Your task to perform on an android device: Search for bose soundlink mini on bestbuy.com, select the first entry, and add it to the cart. Image 0: 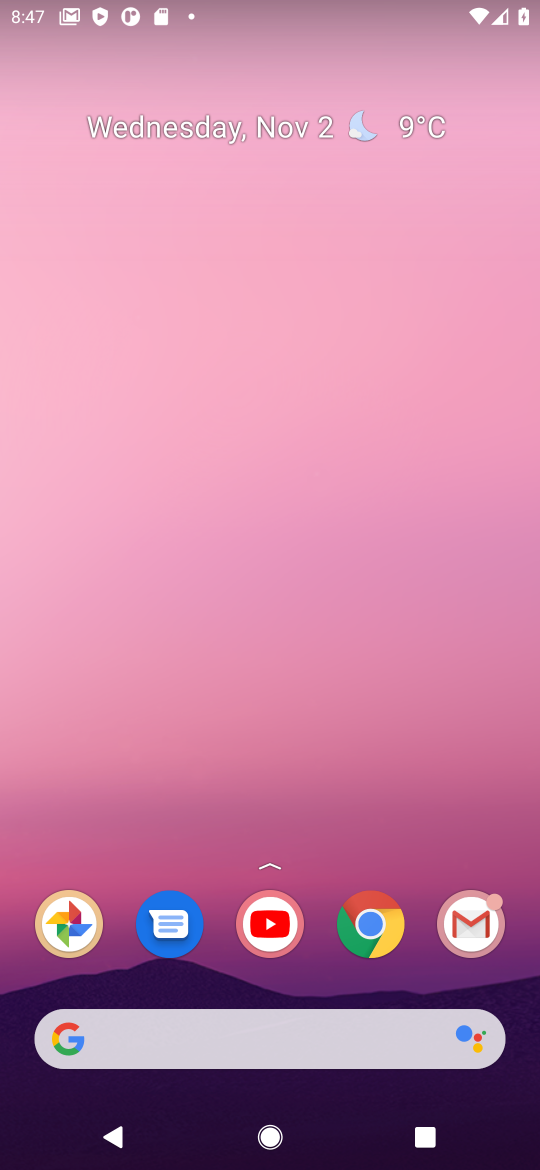
Step 0: press home button
Your task to perform on an android device: Search for bose soundlink mini on bestbuy.com, select the first entry, and add it to the cart. Image 1: 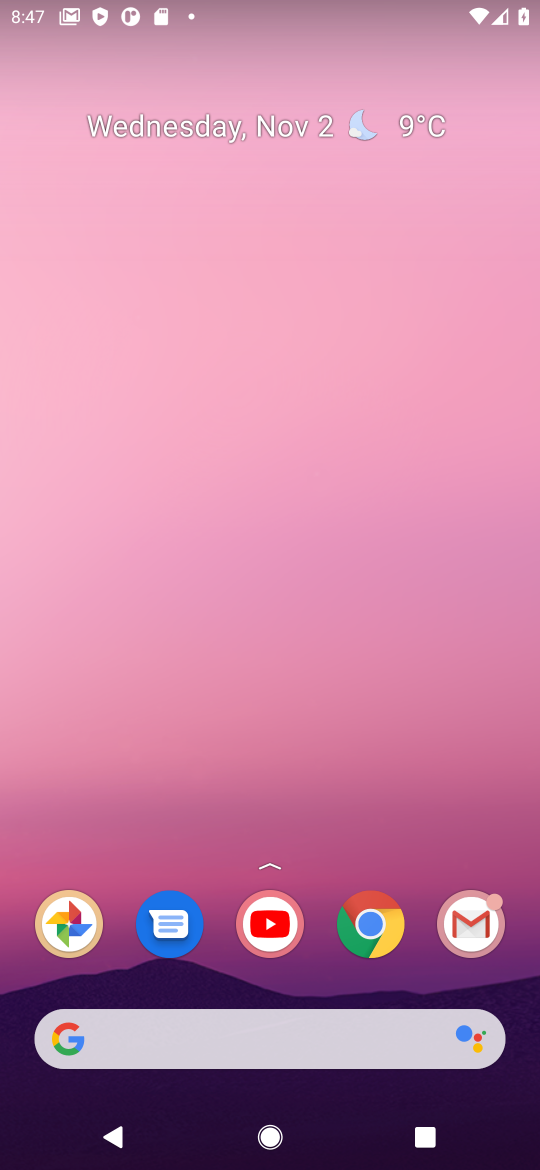
Step 1: click (387, 932)
Your task to perform on an android device: Search for bose soundlink mini on bestbuy.com, select the first entry, and add it to the cart. Image 2: 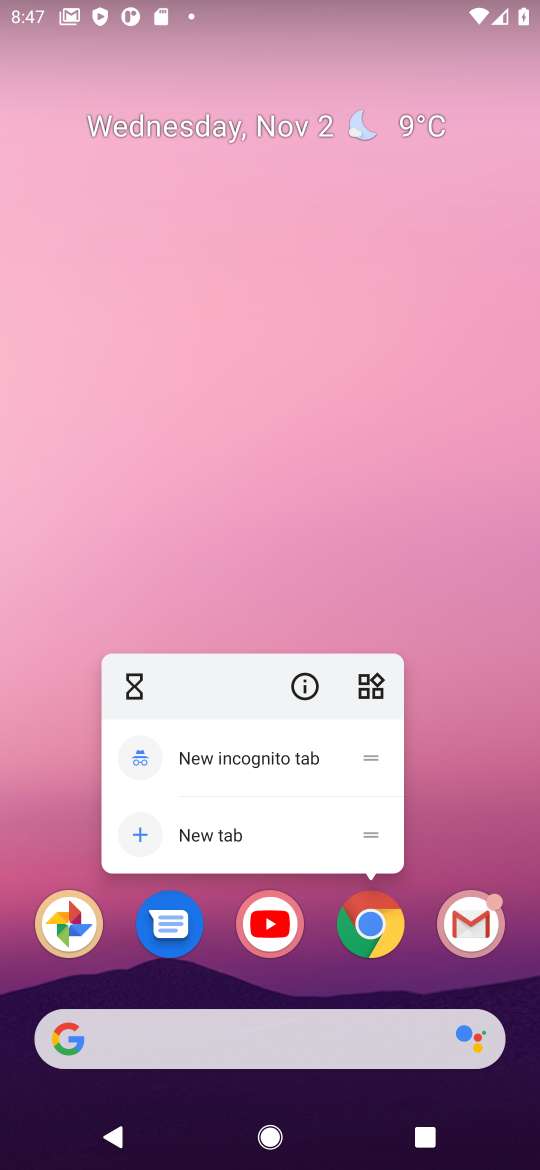
Step 2: click (381, 945)
Your task to perform on an android device: Search for bose soundlink mini on bestbuy.com, select the first entry, and add it to the cart. Image 3: 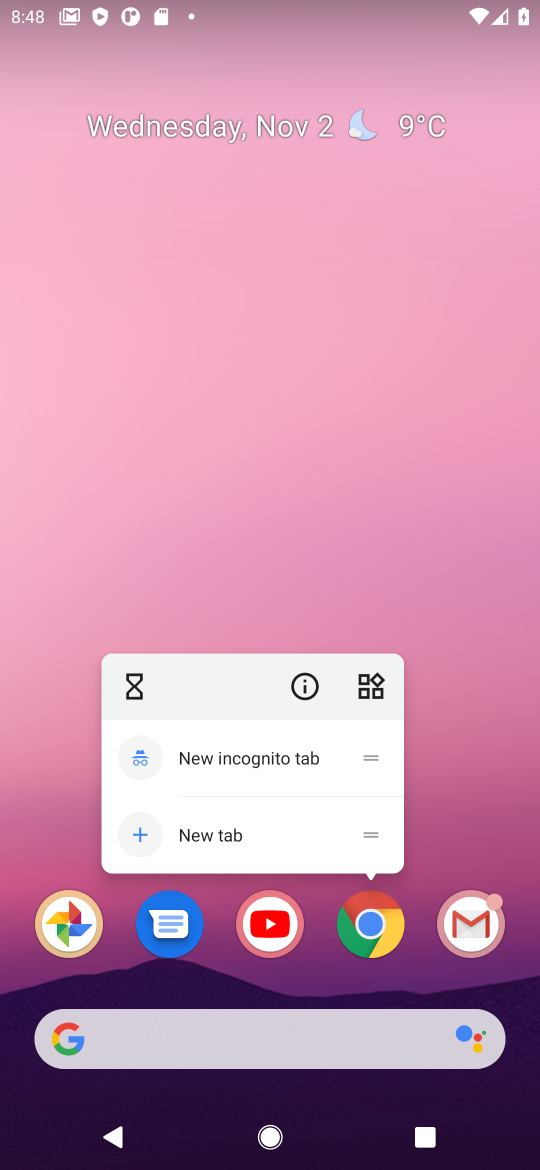
Step 3: click (387, 940)
Your task to perform on an android device: Search for bose soundlink mini on bestbuy.com, select the first entry, and add it to the cart. Image 4: 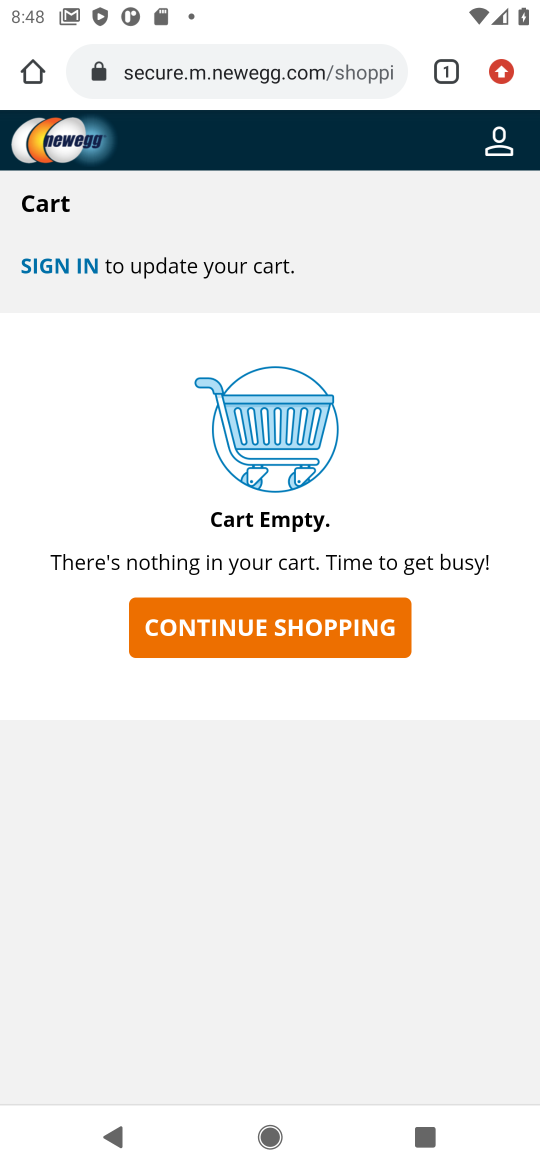
Step 4: click (224, 77)
Your task to perform on an android device: Search for bose soundlink mini on bestbuy.com, select the first entry, and add it to the cart. Image 5: 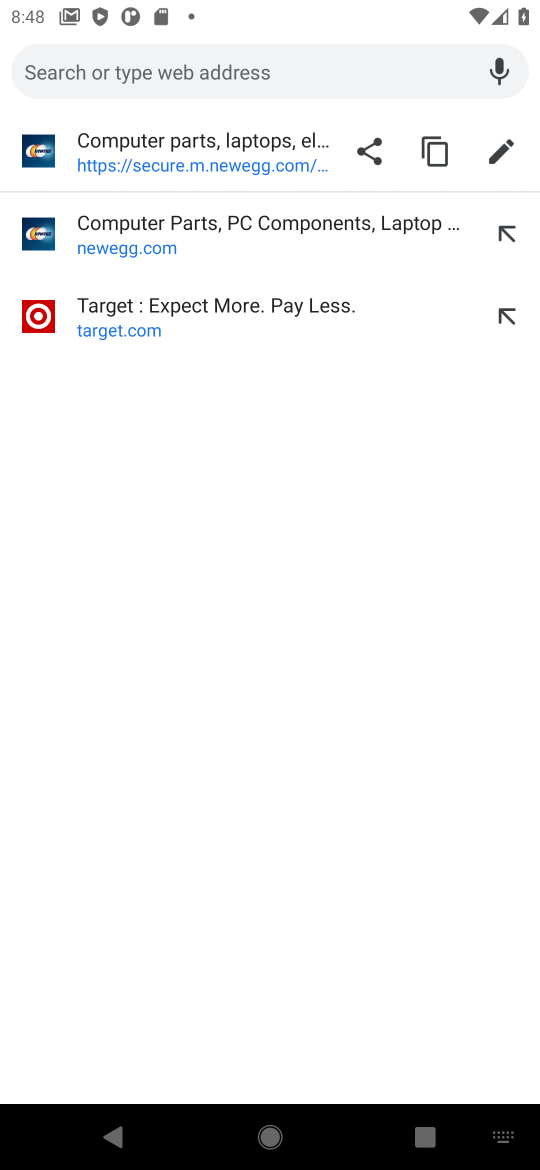
Step 5: type "bestbuy"
Your task to perform on an android device: Search for bose soundlink mini on bestbuy.com, select the first entry, and add it to the cart. Image 6: 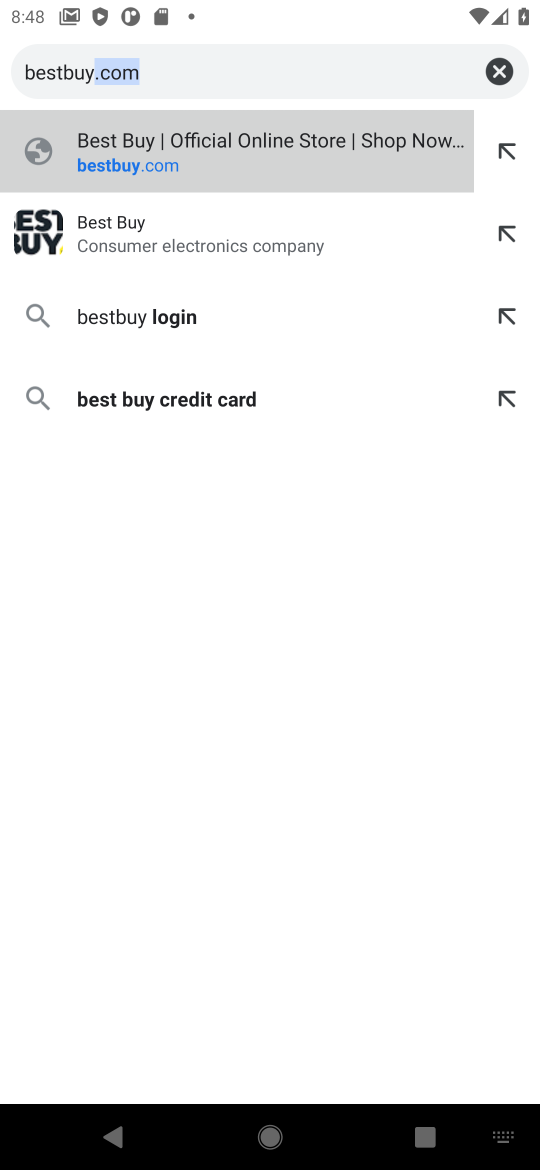
Step 6: type ""
Your task to perform on an android device: Search for bose soundlink mini on bestbuy.com, select the first entry, and add it to the cart. Image 7: 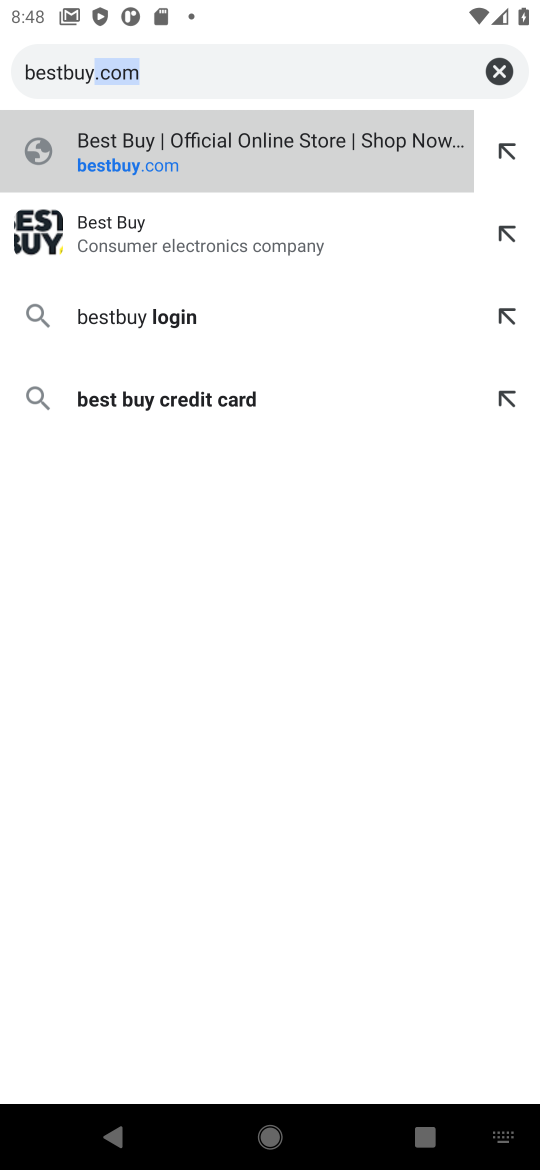
Step 7: click (161, 240)
Your task to perform on an android device: Search for bose soundlink mini on bestbuy.com, select the first entry, and add it to the cart. Image 8: 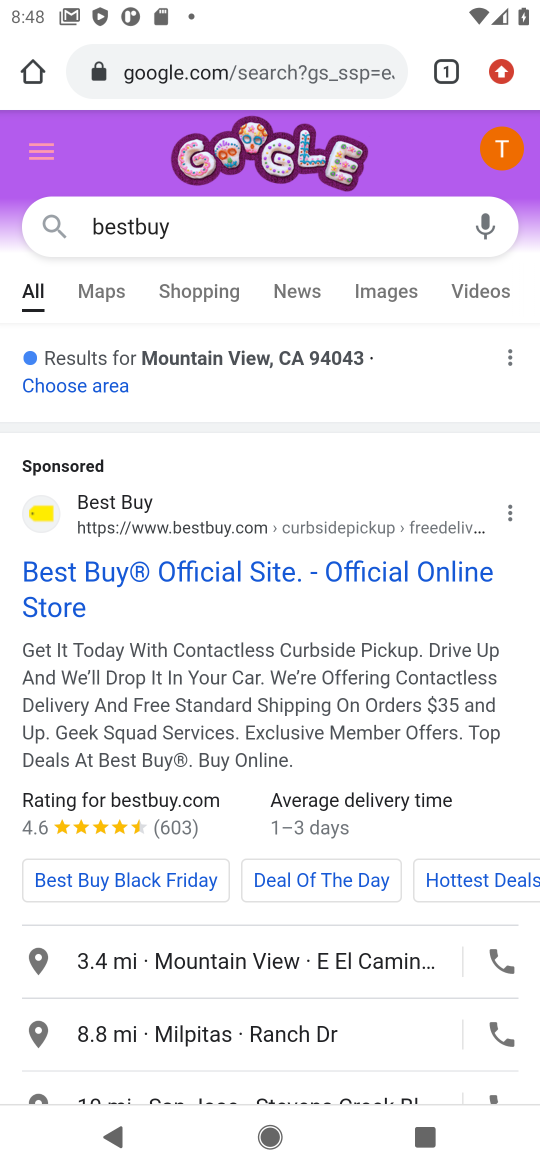
Step 8: drag from (254, 743) to (267, 170)
Your task to perform on an android device: Search for bose soundlink mini on bestbuy.com, select the first entry, and add it to the cart. Image 9: 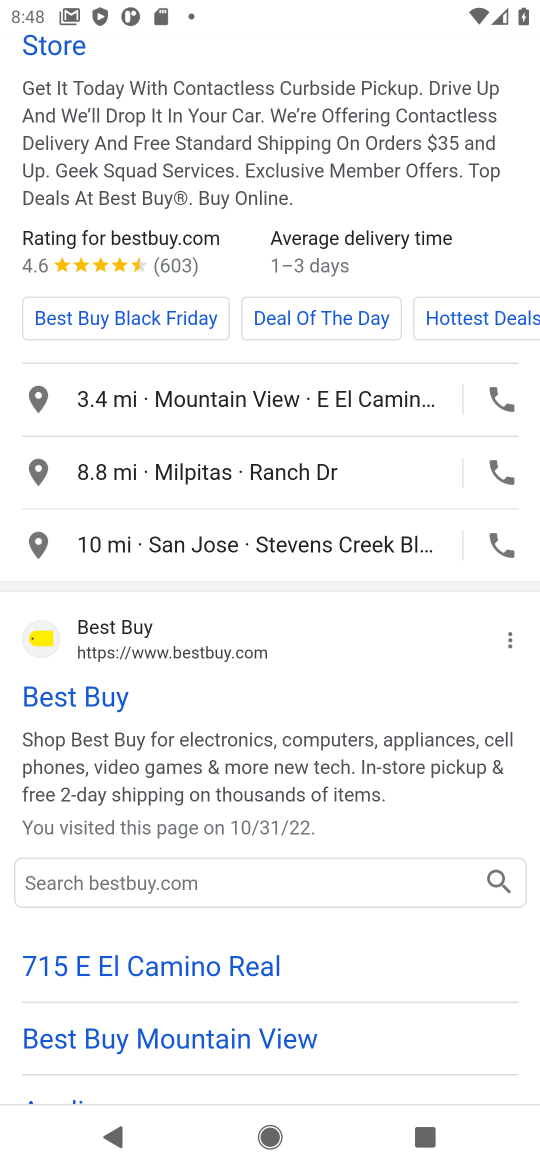
Step 9: click (92, 698)
Your task to perform on an android device: Search for bose soundlink mini on bestbuy.com, select the first entry, and add it to the cart. Image 10: 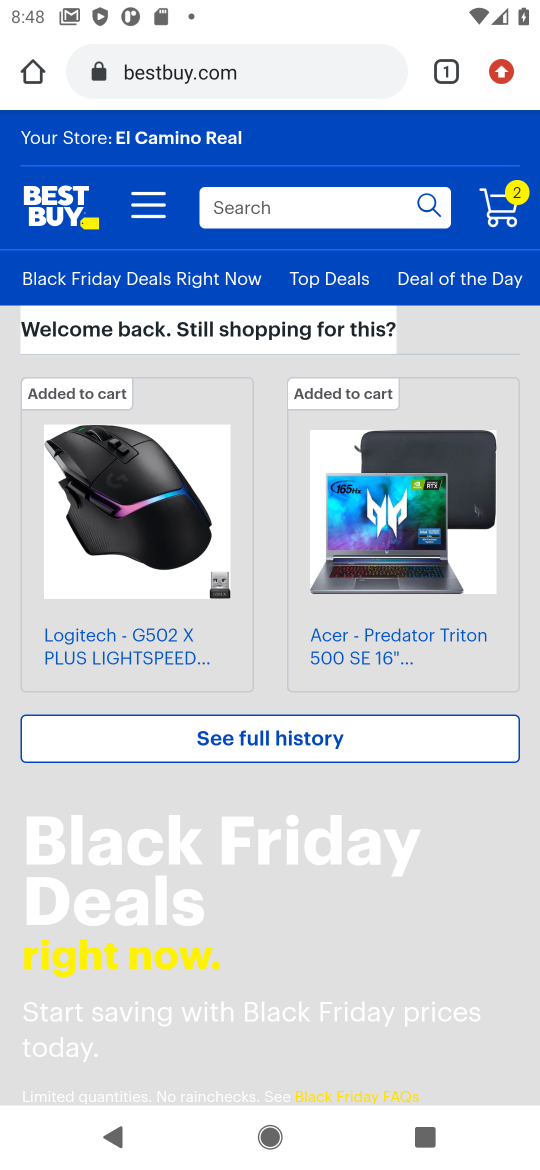
Step 10: click (342, 198)
Your task to perform on an android device: Search for bose soundlink mini on bestbuy.com, select the first entry, and add it to the cart. Image 11: 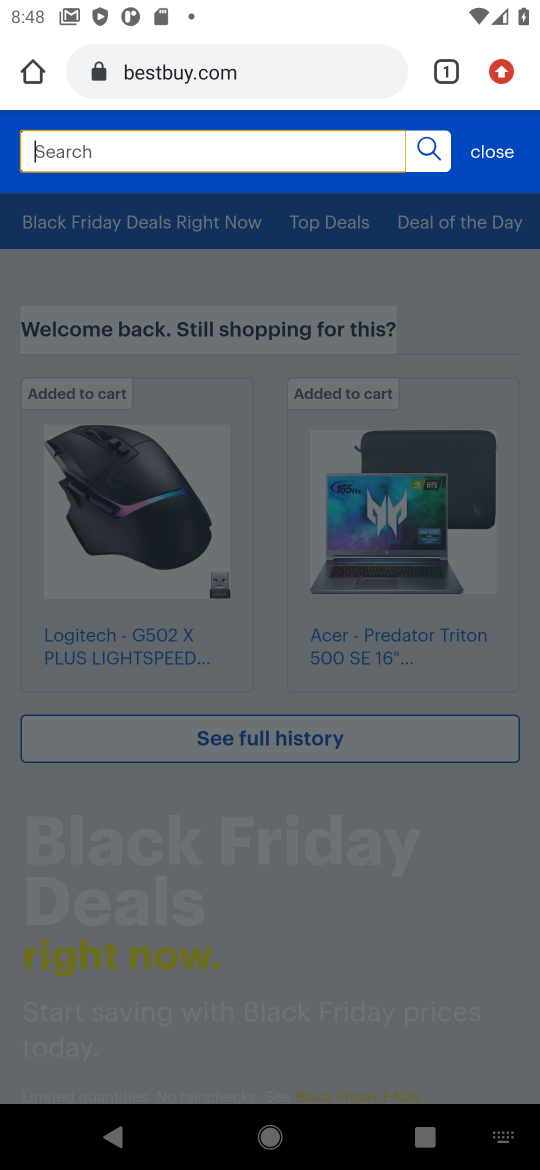
Step 11: type "bose soundlink mini"
Your task to perform on an android device: Search for bose soundlink mini on bestbuy.com, select the first entry, and add it to the cart. Image 12: 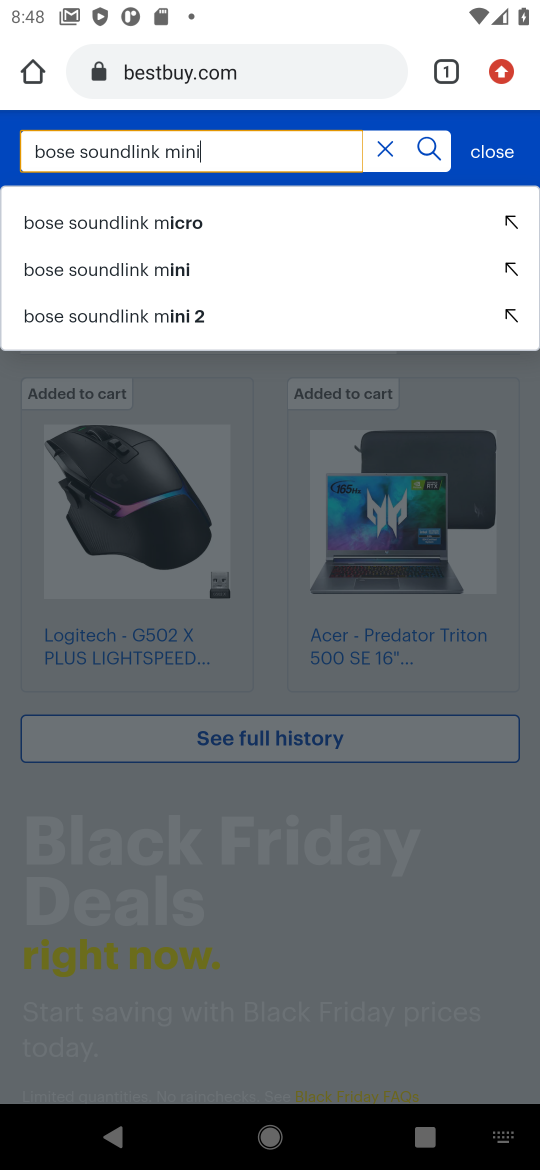
Step 12: type ""
Your task to perform on an android device: Search for bose soundlink mini on bestbuy.com, select the first entry, and add it to the cart. Image 13: 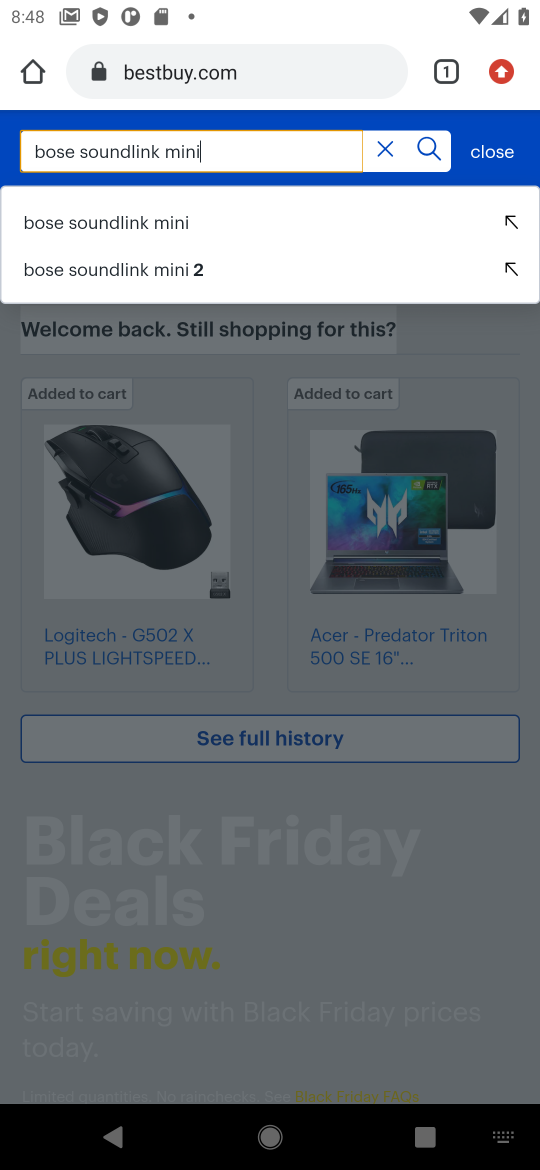
Step 13: click (79, 224)
Your task to perform on an android device: Search for bose soundlink mini on bestbuy.com, select the first entry, and add it to the cart. Image 14: 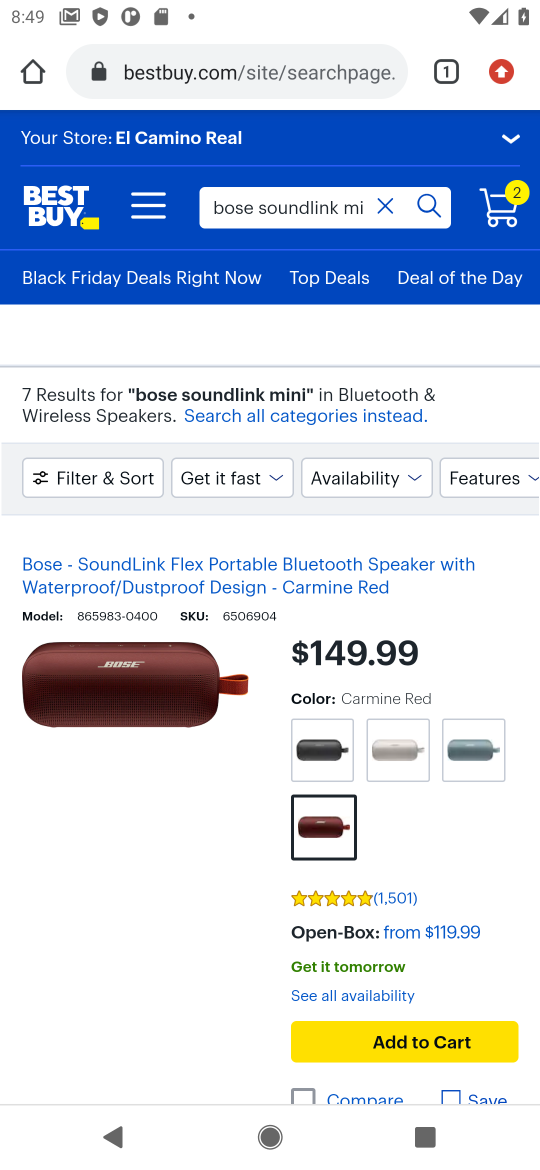
Step 14: click (400, 1042)
Your task to perform on an android device: Search for bose soundlink mini on bestbuy.com, select the first entry, and add it to the cart. Image 15: 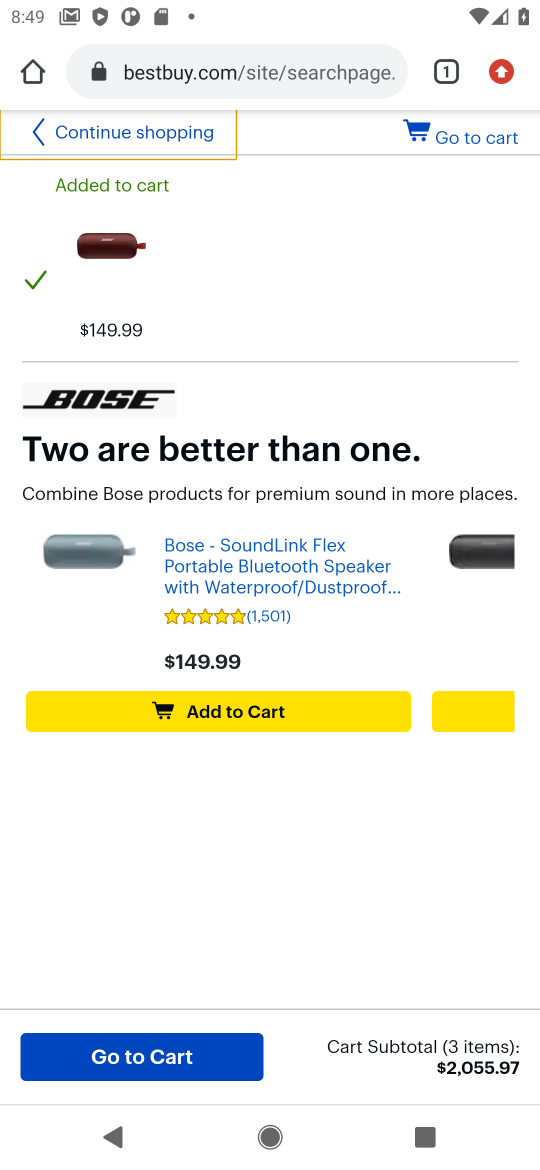
Step 15: click (121, 1070)
Your task to perform on an android device: Search for bose soundlink mini on bestbuy.com, select the first entry, and add it to the cart. Image 16: 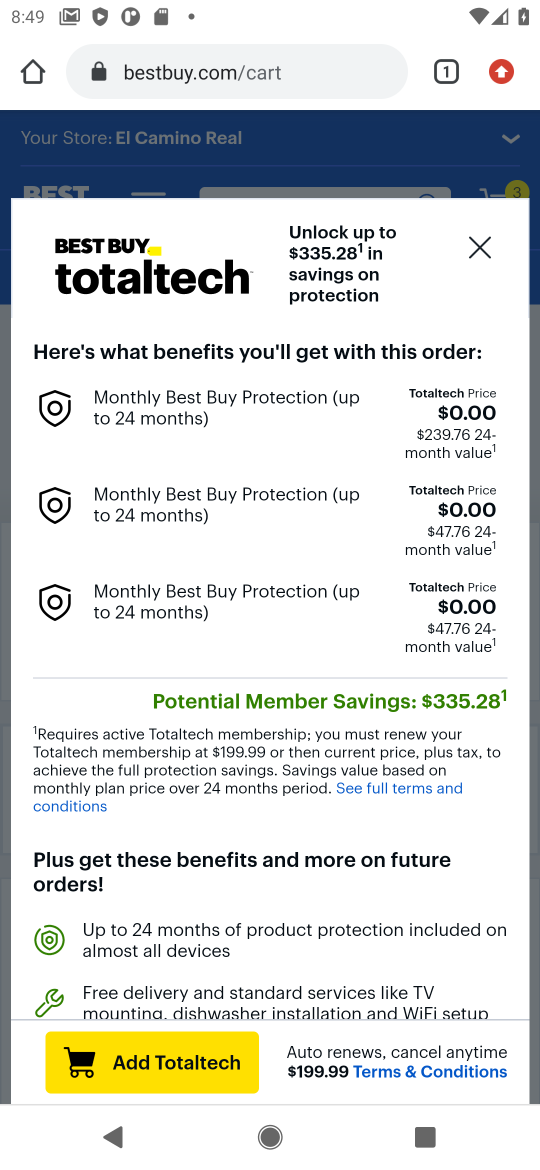
Step 16: click (478, 248)
Your task to perform on an android device: Search for bose soundlink mini on bestbuy.com, select the first entry, and add it to the cart. Image 17: 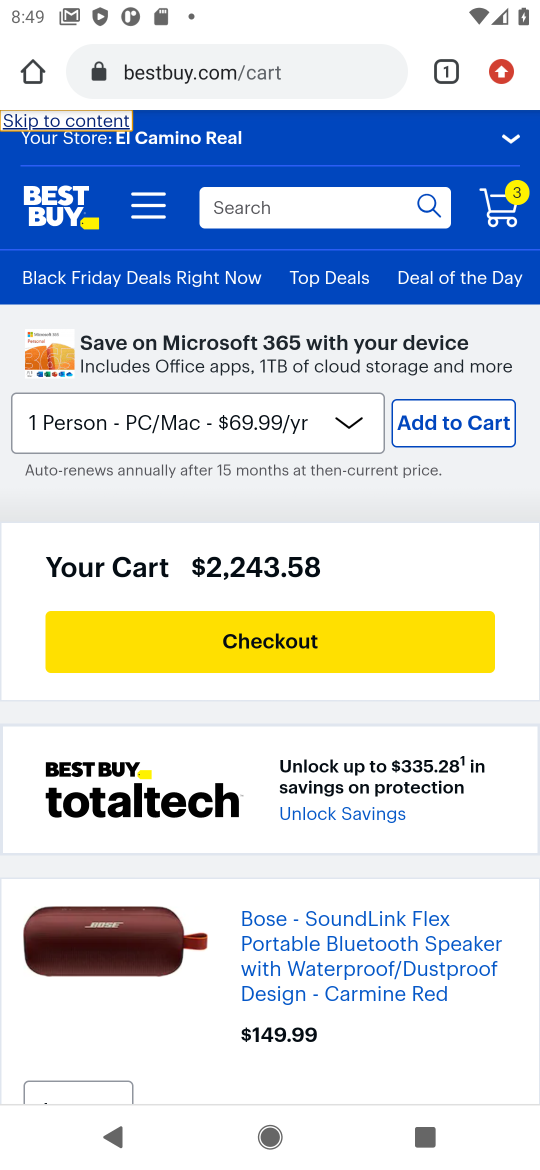
Step 17: drag from (219, 999) to (354, 119)
Your task to perform on an android device: Search for bose soundlink mini on bestbuy.com, select the first entry, and add it to the cart. Image 18: 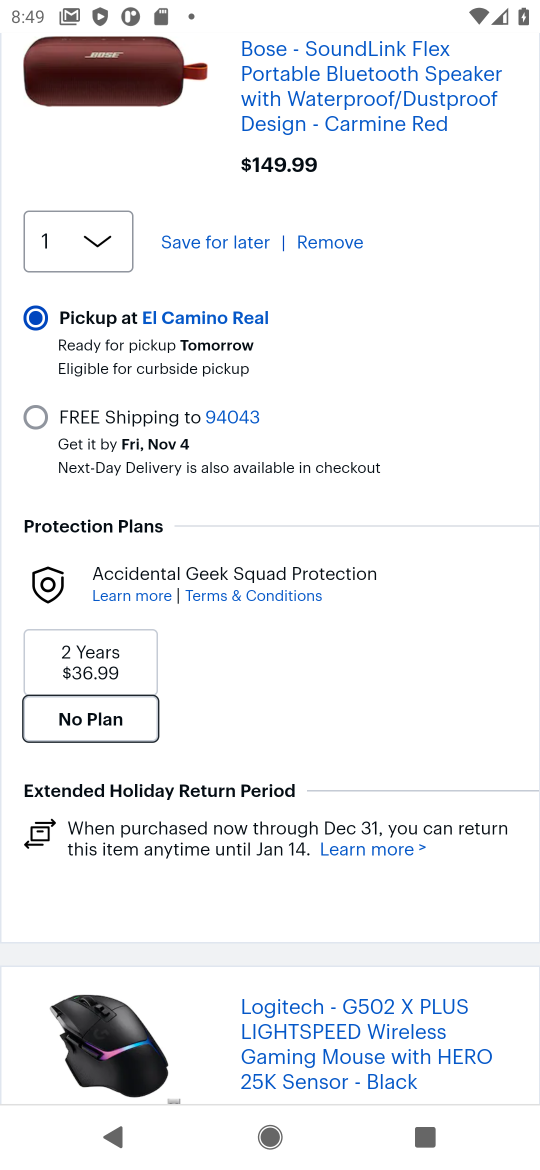
Step 18: drag from (281, 944) to (394, 153)
Your task to perform on an android device: Search for bose soundlink mini on bestbuy.com, select the first entry, and add it to the cart. Image 19: 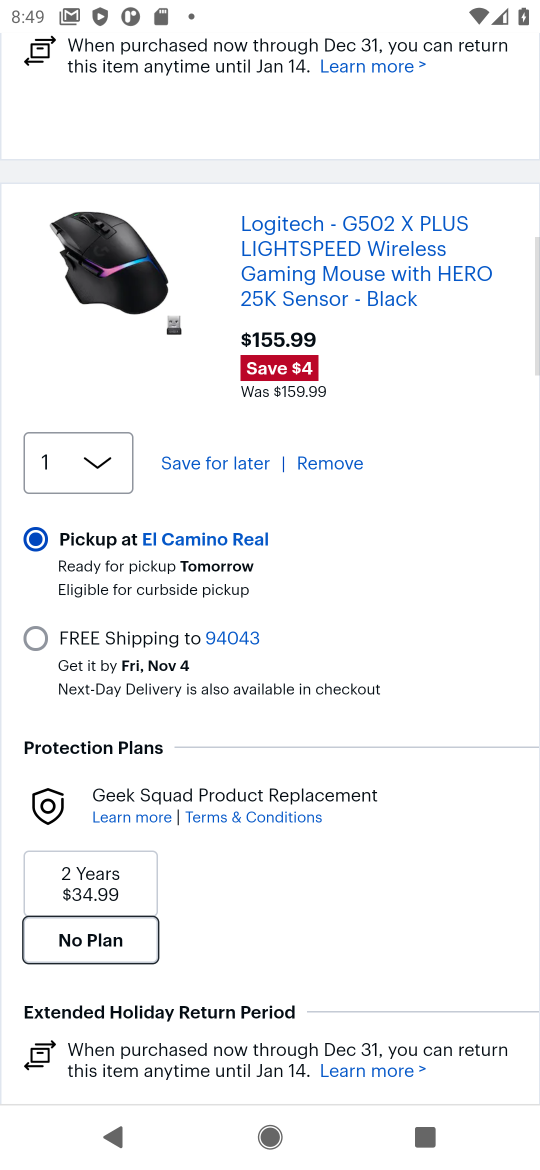
Step 19: drag from (301, 388) to (366, 1130)
Your task to perform on an android device: Search for bose soundlink mini on bestbuy.com, select the first entry, and add it to the cart. Image 20: 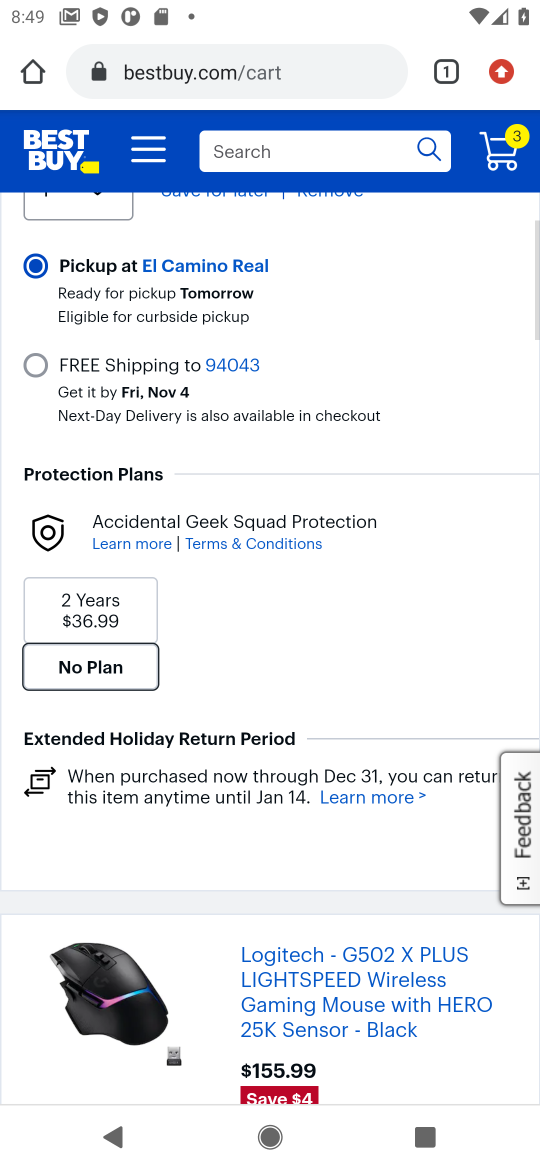
Step 20: click (380, 978)
Your task to perform on an android device: Search for bose soundlink mini on bestbuy.com, select the first entry, and add it to the cart. Image 21: 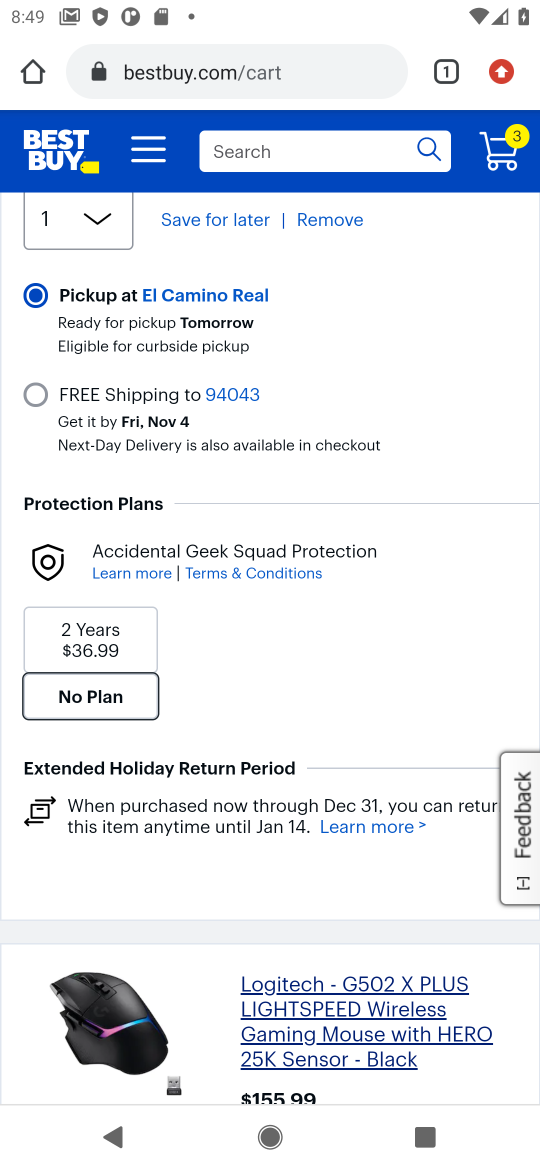
Step 21: drag from (396, 527) to (308, 119)
Your task to perform on an android device: Search for bose soundlink mini on bestbuy.com, select the first entry, and add it to the cart. Image 22: 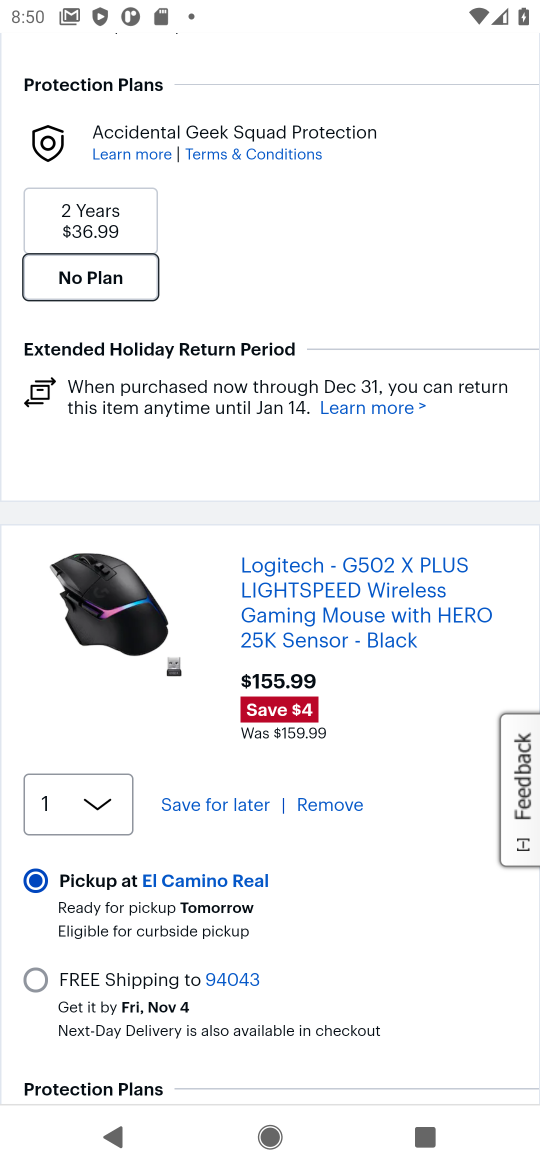
Step 22: drag from (244, 866) to (248, 164)
Your task to perform on an android device: Search for bose soundlink mini on bestbuy.com, select the first entry, and add it to the cart. Image 23: 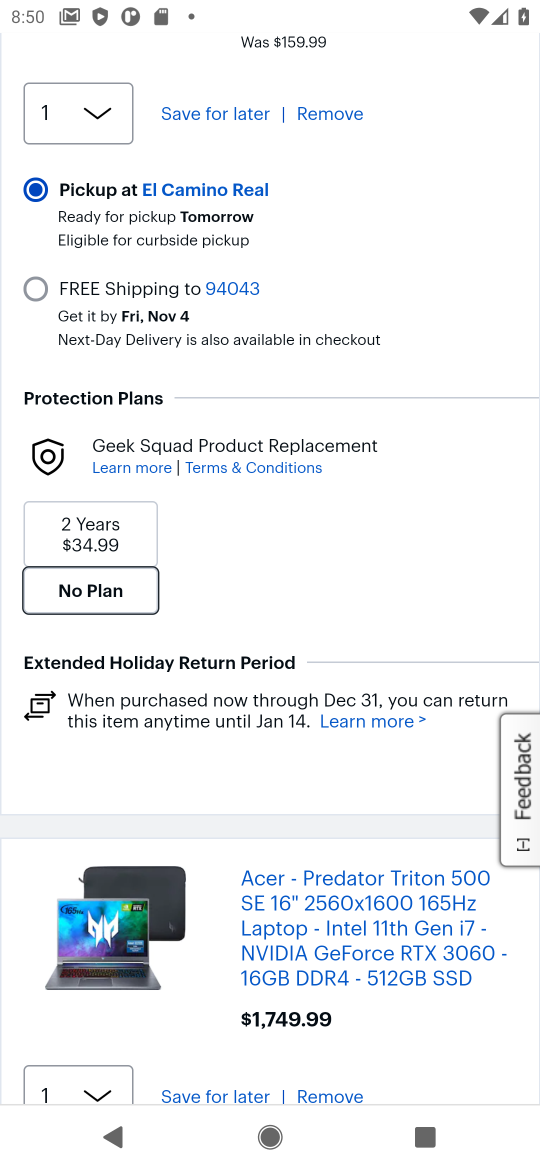
Step 23: drag from (286, 929) to (270, 43)
Your task to perform on an android device: Search for bose soundlink mini on bestbuy.com, select the first entry, and add it to the cart. Image 24: 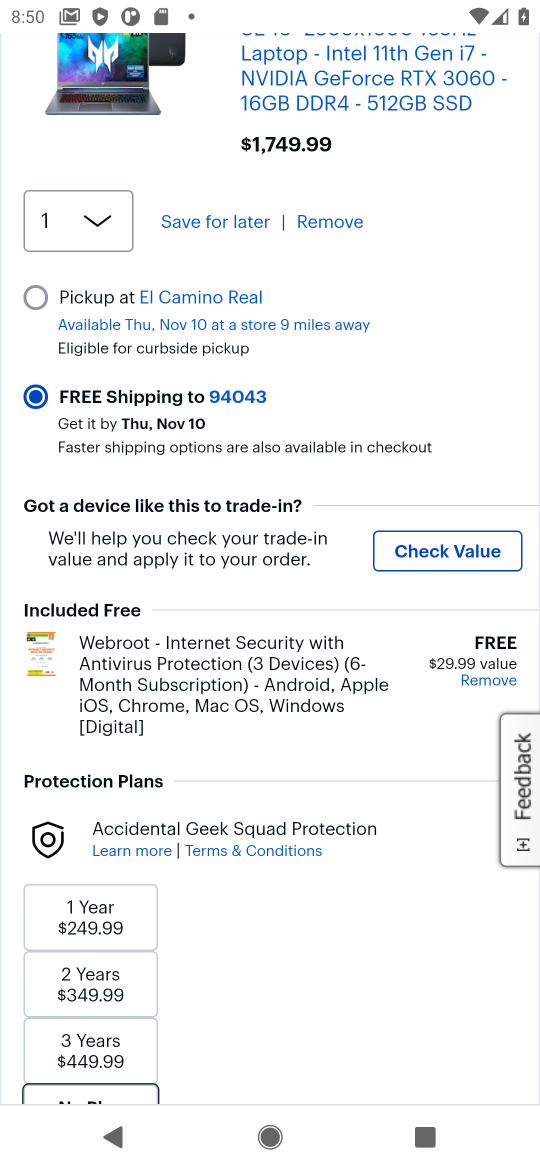
Step 24: drag from (200, 478) to (200, 1008)
Your task to perform on an android device: Search for bose soundlink mini on bestbuy.com, select the first entry, and add it to the cart. Image 25: 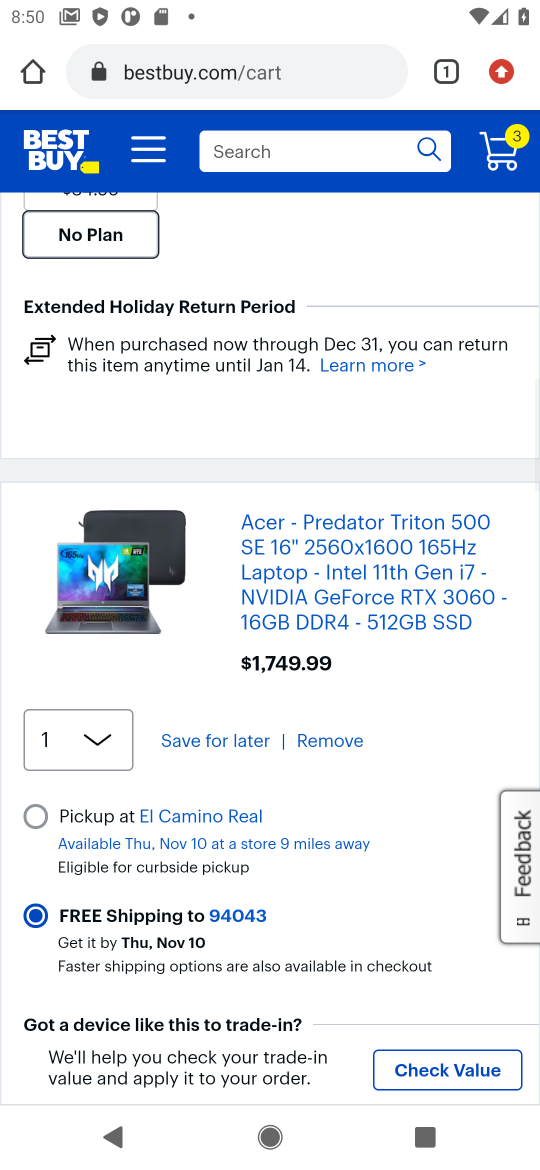
Step 25: drag from (302, 813) to (218, 1044)
Your task to perform on an android device: Search for bose soundlink mini on bestbuy.com, select the first entry, and add it to the cart. Image 26: 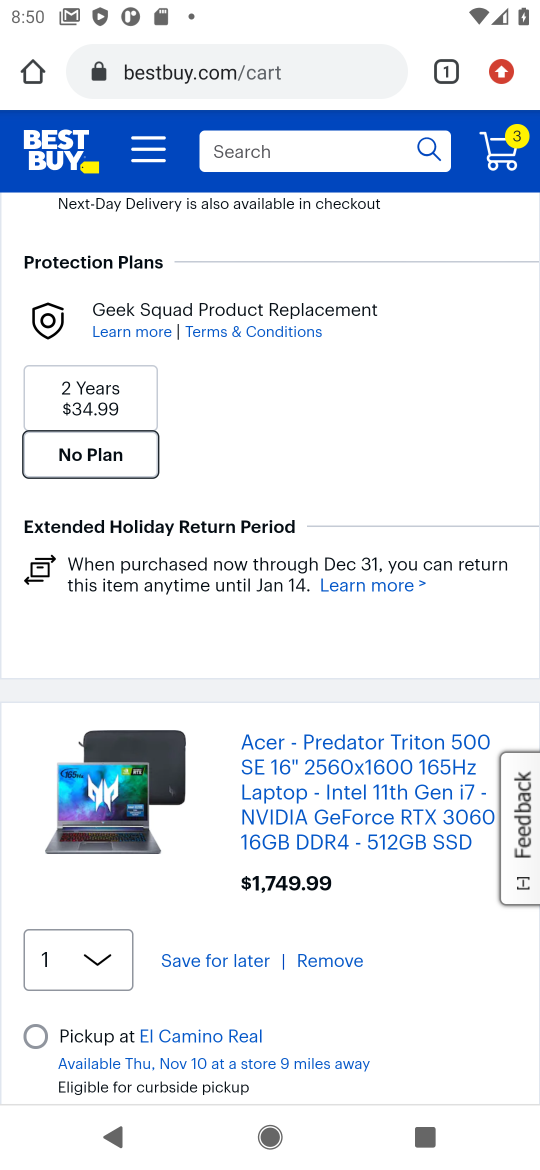
Step 26: click (490, 143)
Your task to perform on an android device: Search for bose soundlink mini on bestbuy.com, select the first entry, and add it to the cart. Image 27: 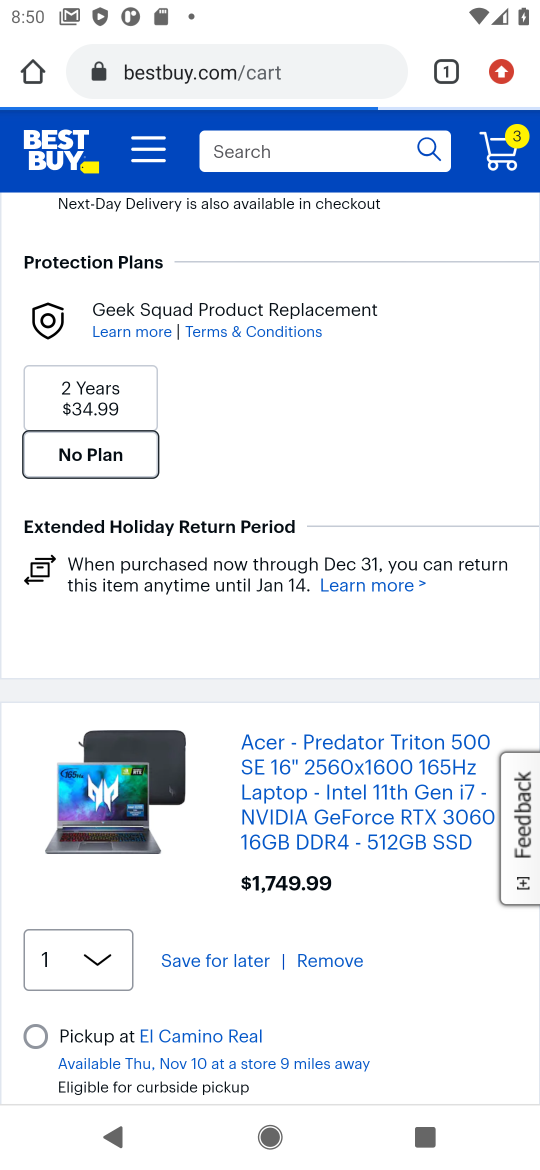
Step 27: click (503, 149)
Your task to perform on an android device: Search for bose soundlink mini on bestbuy.com, select the first entry, and add it to the cart. Image 28: 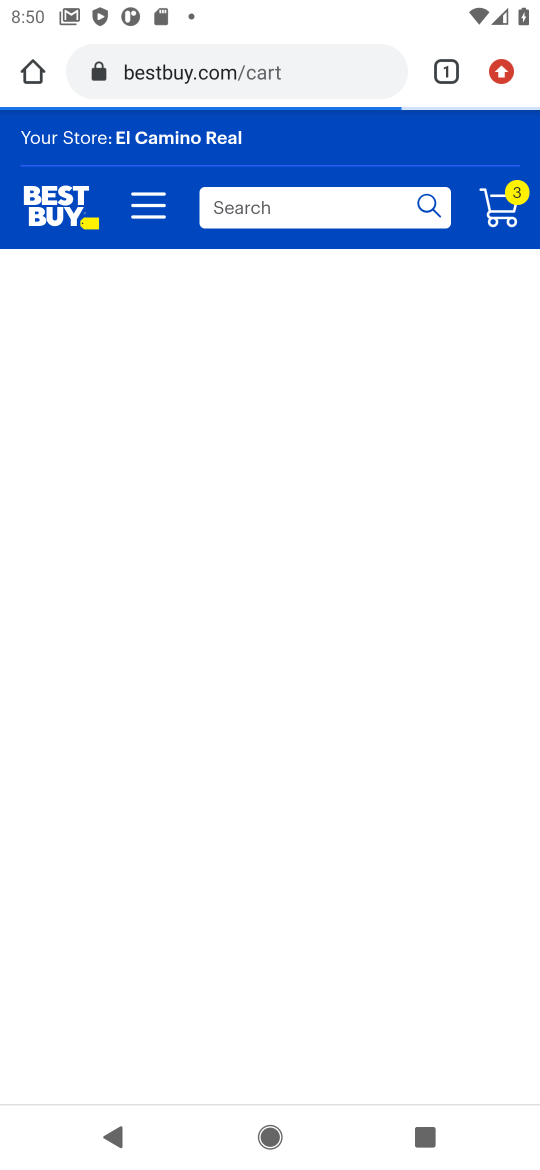
Step 28: drag from (366, 523) to (333, 195)
Your task to perform on an android device: Search for bose soundlink mini on bestbuy.com, select the first entry, and add it to the cart. Image 29: 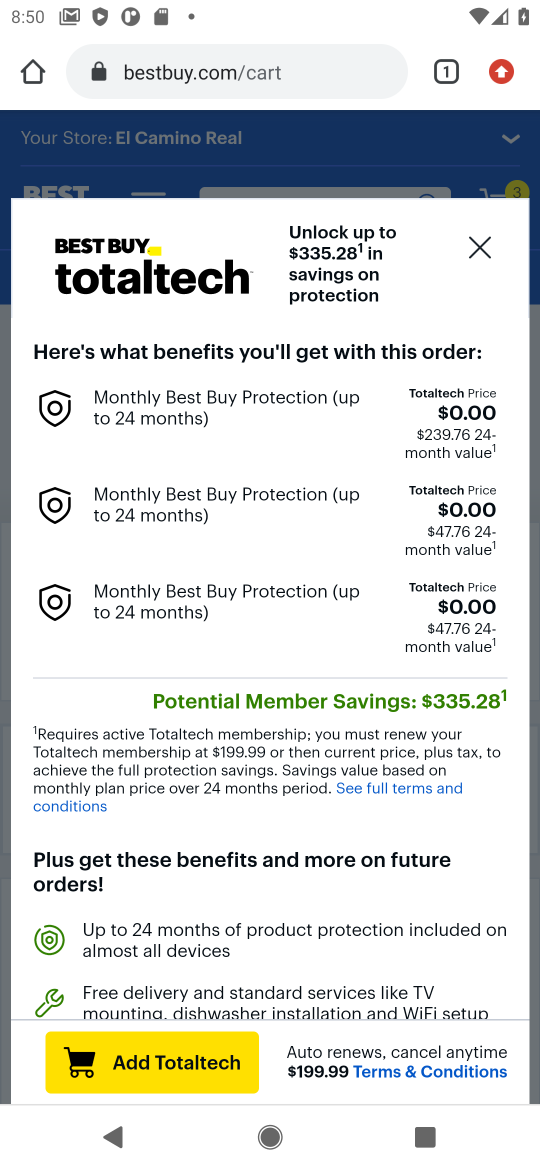
Step 29: click (473, 245)
Your task to perform on an android device: Search for bose soundlink mini on bestbuy.com, select the first entry, and add it to the cart. Image 30: 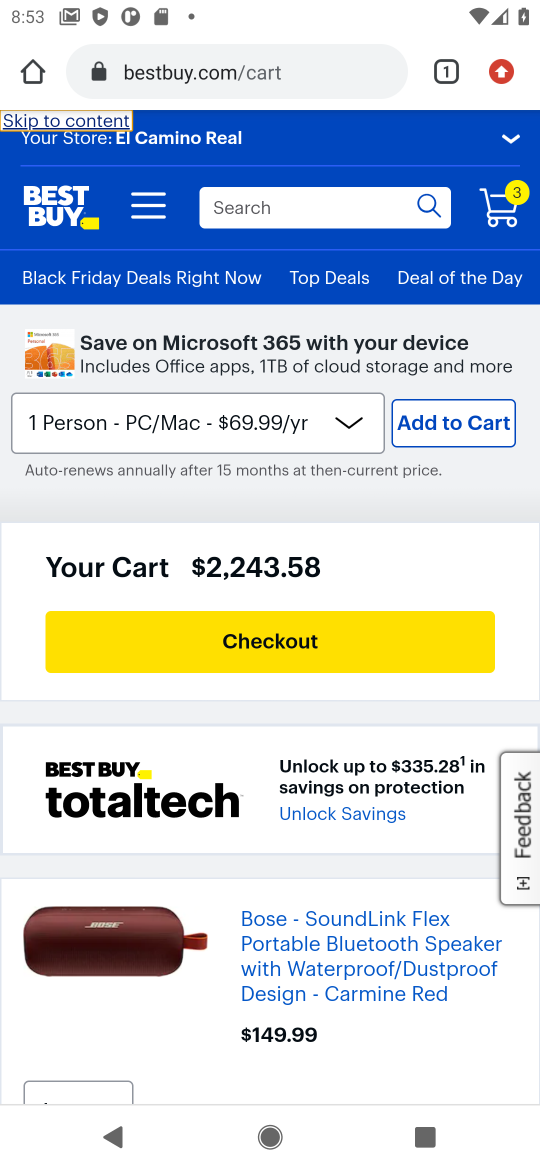
Step 30: task complete